Your task to perform on an android device: clear history in the chrome app Image 0: 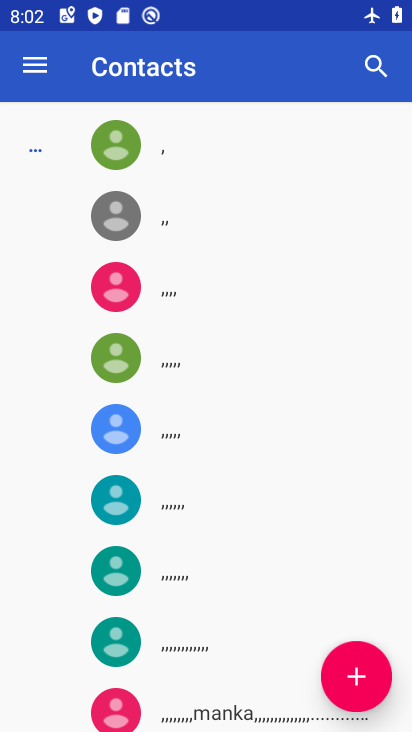
Step 0: press home button
Your task to perform on an android device: clear history in the chrome app Image 1: 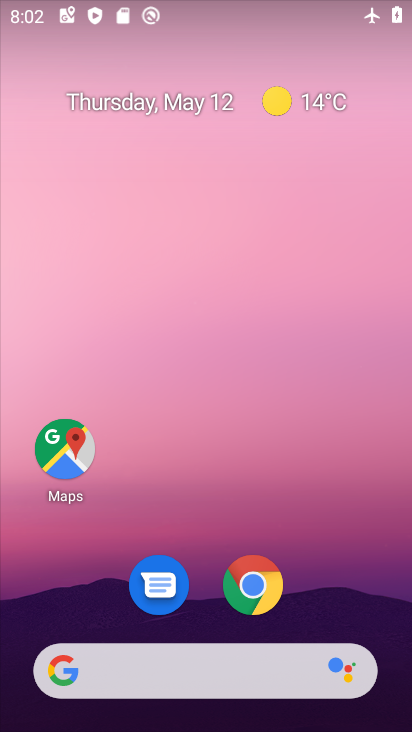
Step 1: click (255, 566)
Your task to perform on an android device: clear history in the chrome app Image 2: 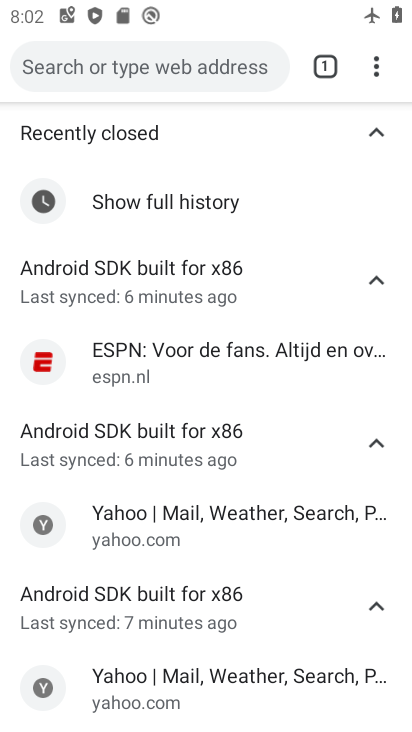
Step 2: click (375, 72)
Your task to perform on an android device: clear history in the chrome app Image 3: 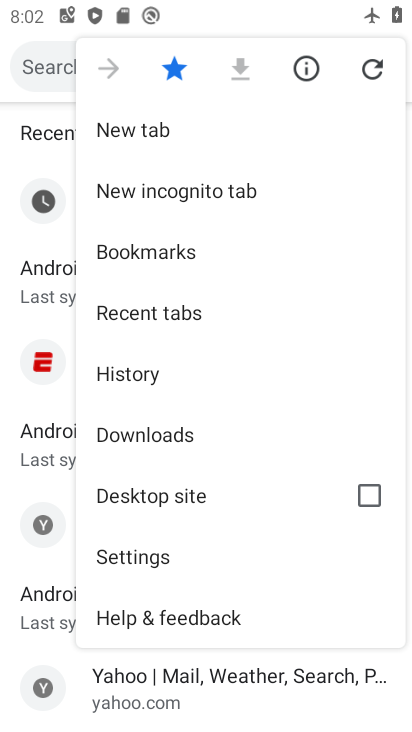
Step 3: click (174, 553)
Your task to perform on an android device: clear history in the chrome app Image 4: 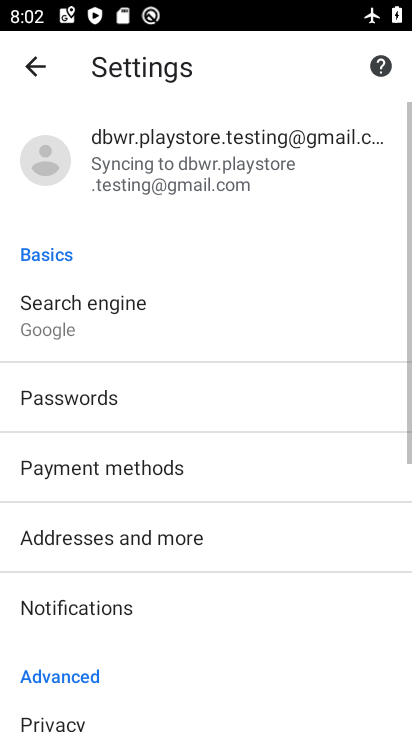
Step 4: drag from (228, 542) to (239, 367)
Your task to perform on an android device: clear history in the chrome app Image 5: 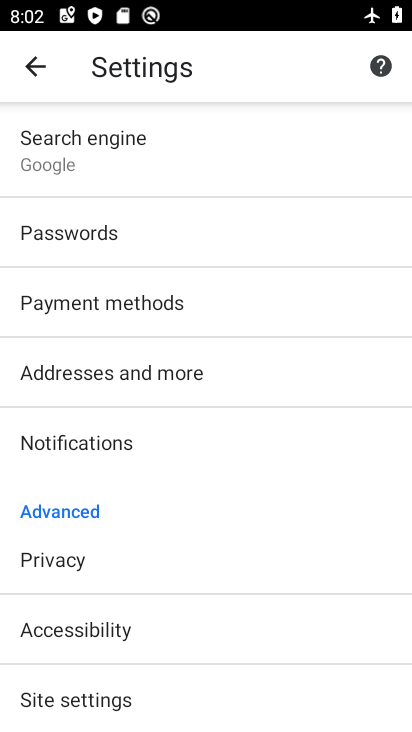
Step 5: click (193, 563)
Your task to perform on an android device: clear history in the chrome app Image 6: 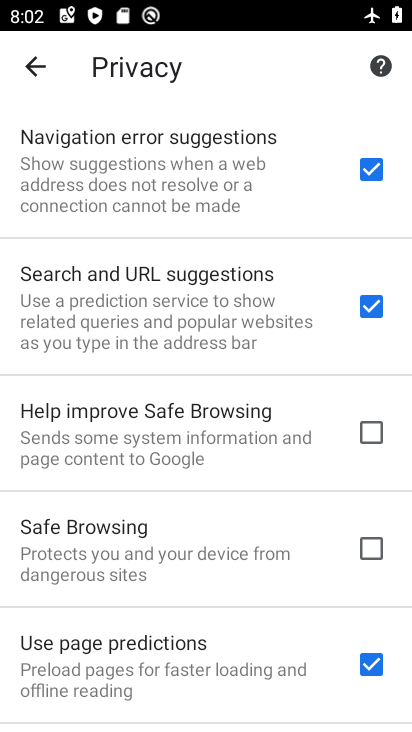
Step 6: drag from (232, 584) to (147, 119)
Your task to perform on an android device: clear history in the chrome app Image 7: 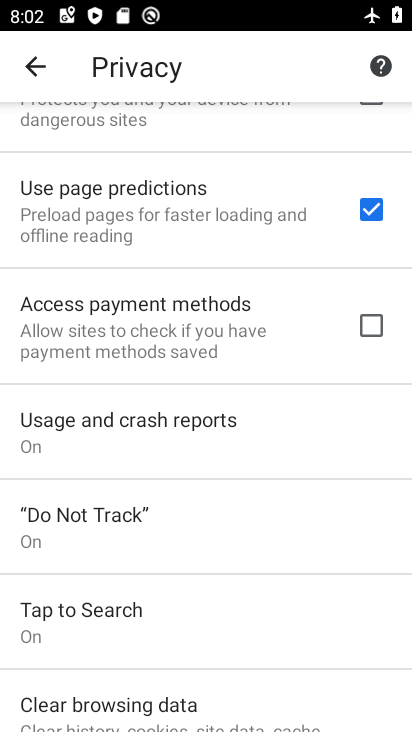
Step 7: drag from (221, 616) to (201, 256)
Your task to perform on an android device: clear history in the chrome app Image 8: 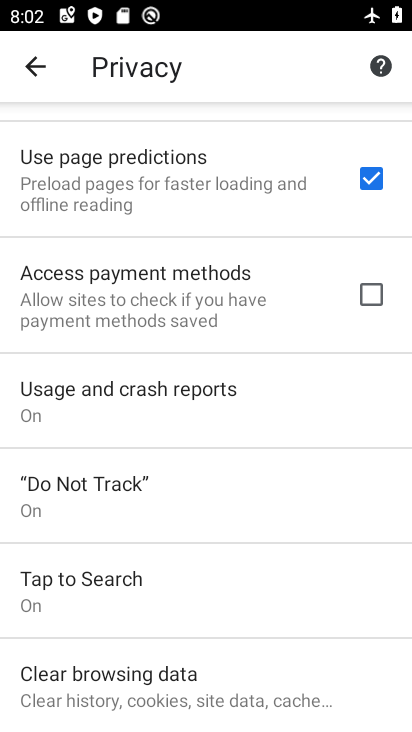
Step 8: click (202, 690)
Your task to perform on an android device: clear history in the chrome app Image 9: 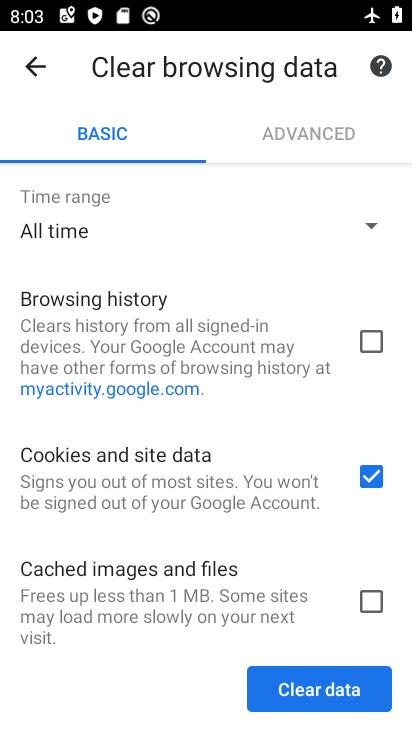
Step 9: click (373, 336)
Your task to perform on an android device: clear history in the chrome app Image 10: 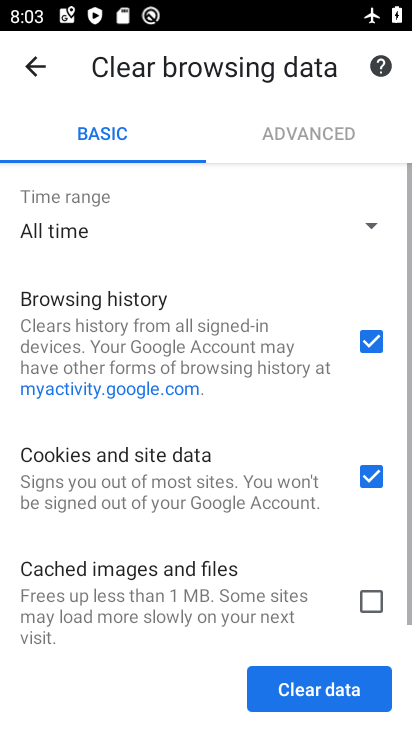
Step 10: click (378, 483)
Your task to perform on an android device: clear history in the chrome app Image 11: 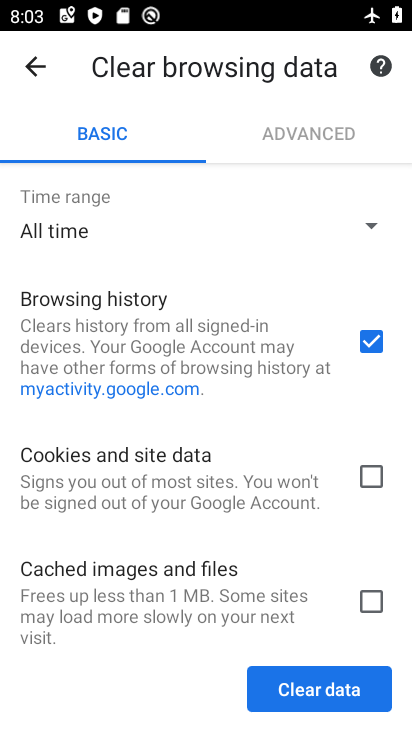
Step 11: task complete